Your task to perform on an android device: toggle improve location accuracy Image 0: 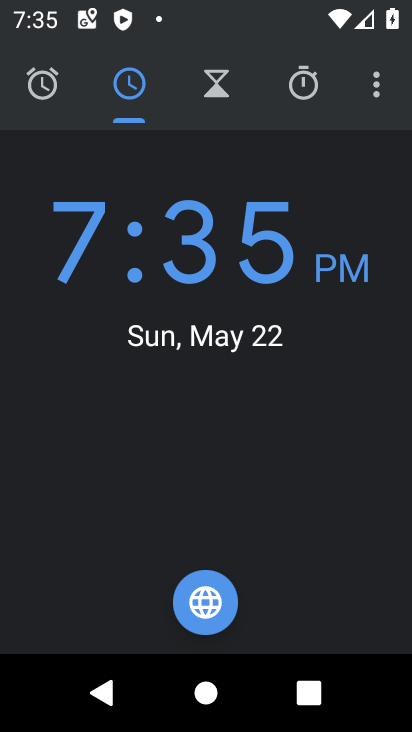
Step 0: press home button
Your task to perform on an android device: toggle improve location accuracy Image 1: 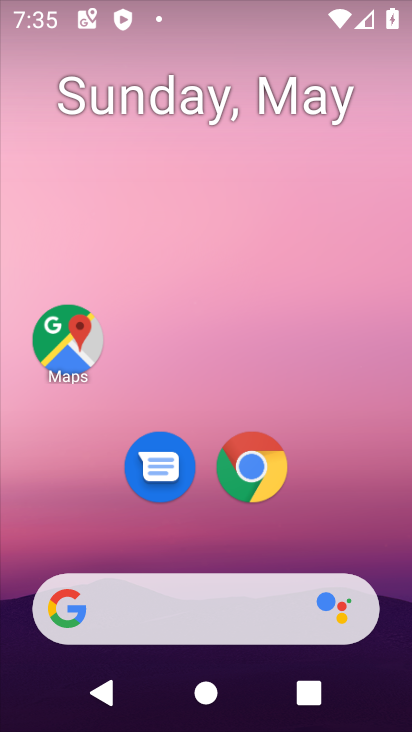
Step 1: drag from (61, 501) to (346, 69)
Your task to perform on an android device: toggle improve location accuracy Image 2: 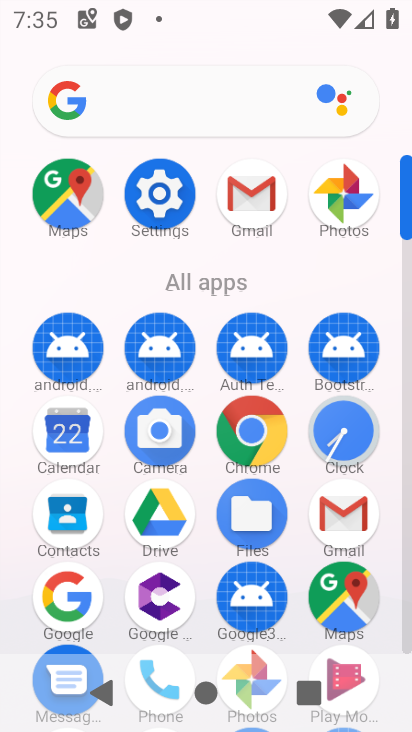
Step 2: click (151, 187)
Your task to perform on an android device: toggle improve location accuracy Image 3: 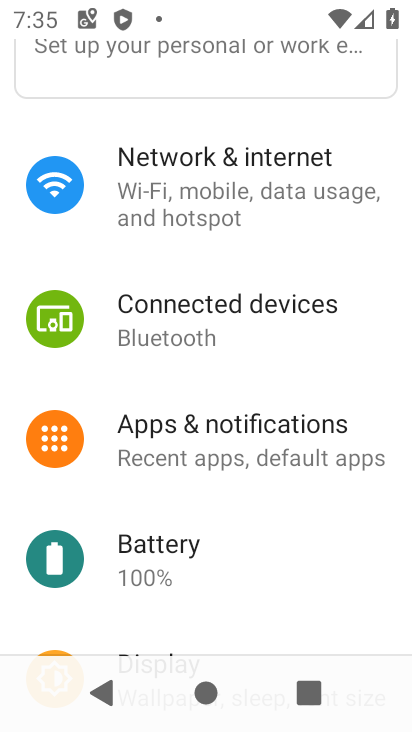
Step 3: drag from (23, 404) to (157, 147)
Your task to perform on an android device: toggle improve location accuracy Image 4: 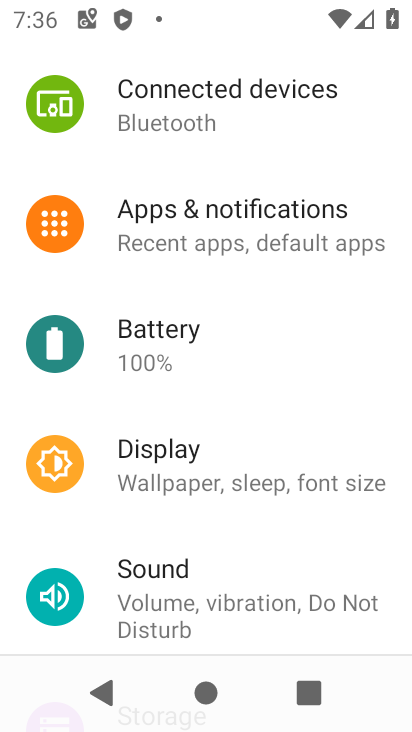
Step 4: drag from (9, 527) to (171, 185)
Your task to perform on an android device: toggle improve location accuracy Image 5: 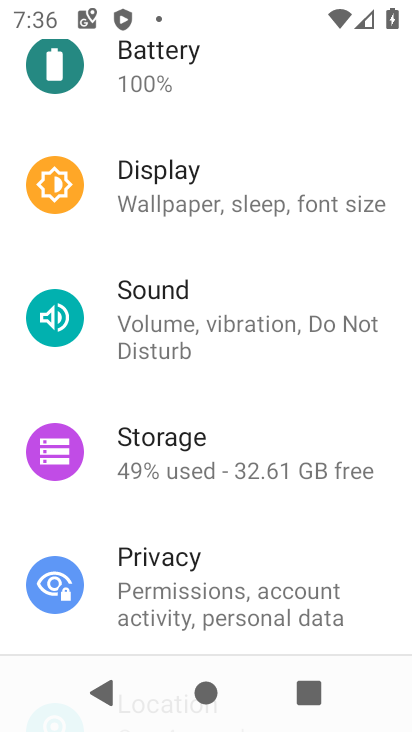
Step 5: drag from (10, 531) to (172, 217)
Your task to perform on an android device: toggle improve location accuracy Image 6: 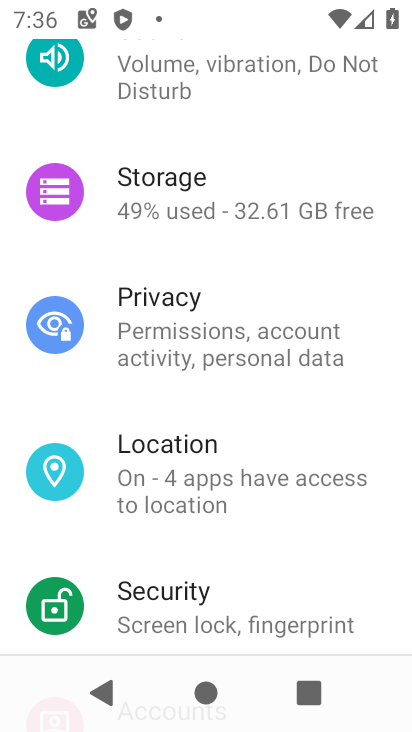
Step 6: click (151, 471)
Your task to perform on an android device: toggle improve location accuracy Image 7: 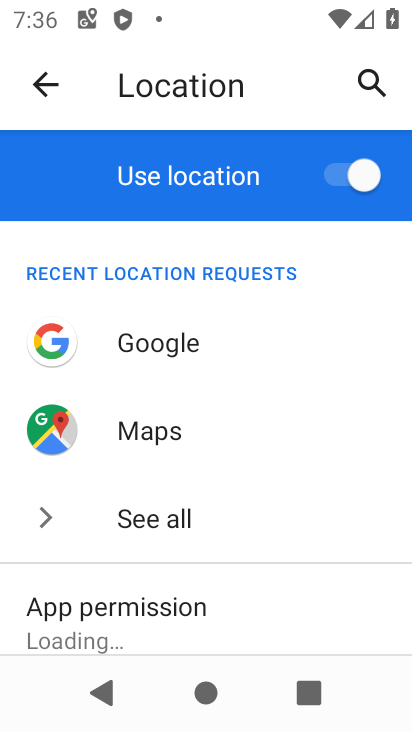
Step 7: drag from (20, 550) to (186, 178)
Your task to perform on an android device: toggle improve location accuracy Image 8: 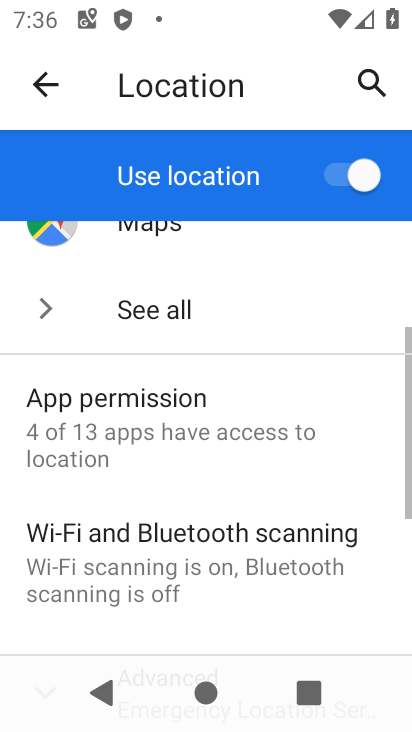
Step 8: drag from (5, 472) to (161, 195)
Your task to perform on an android device: toggle improve location accuracy Image 9: 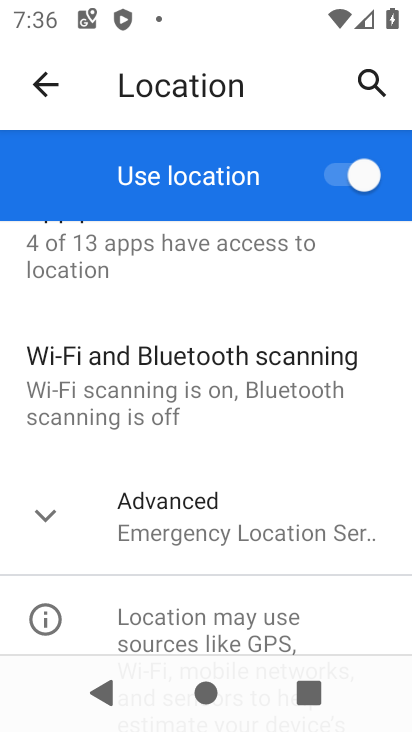
Step 9: click (124, 510)
Your task to perform on an android device: toggle improve location accuracy Image 10: 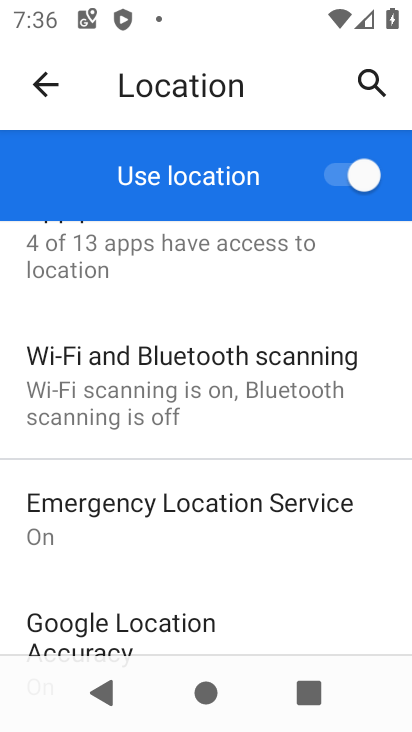
Step 10: drag from (16, 456) to (161, 219)
Your task to perform on an android device: toggle improve location accuracy Image 11: 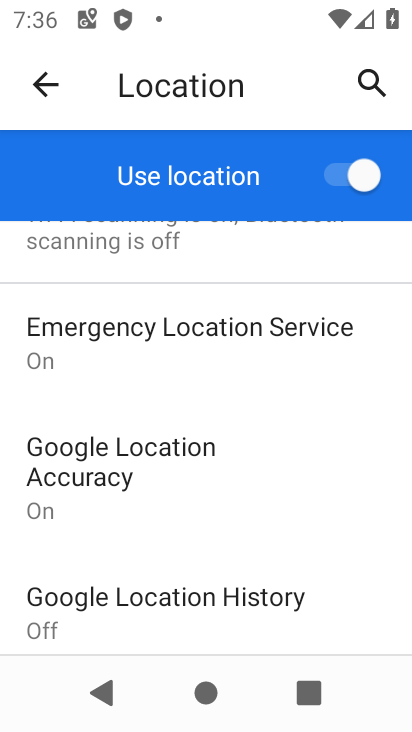
Step 11: click (87, 481)
Your task to perform on an android device: toggle improve location accuracy Image 12: 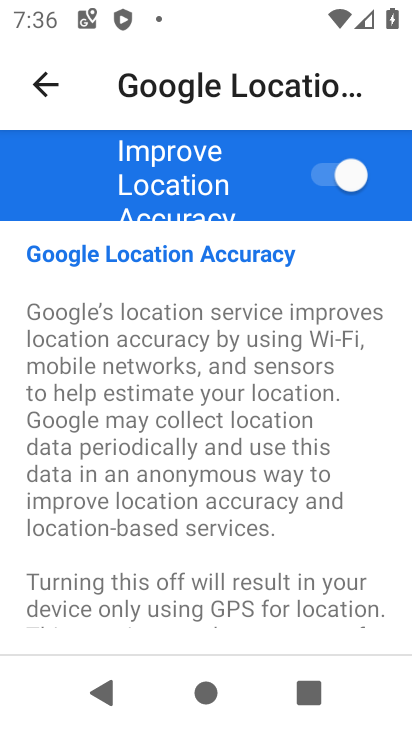
Step 12: click (358, 176)
Your task to perform on an android device: toggle improve location accuracy Image 13: 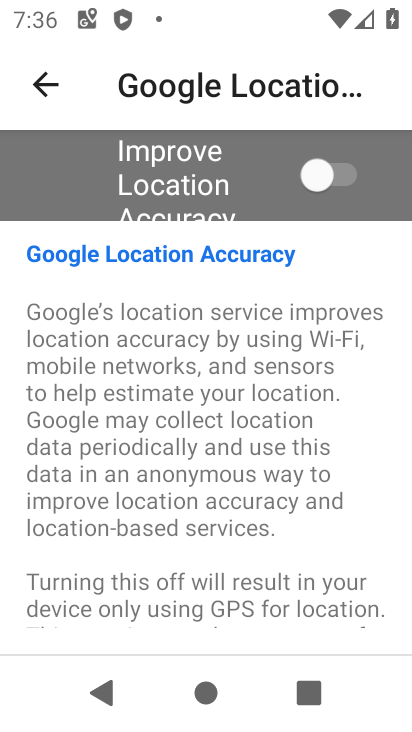
Step 13: task complete